Your task to perform on an android device: Open Android settings Image 0: 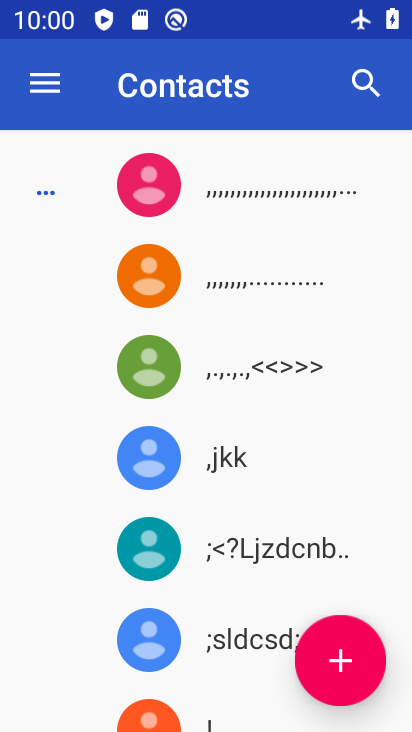
Step 0: press home button
Your task to perform on an android device: Open Android settings Image 1: 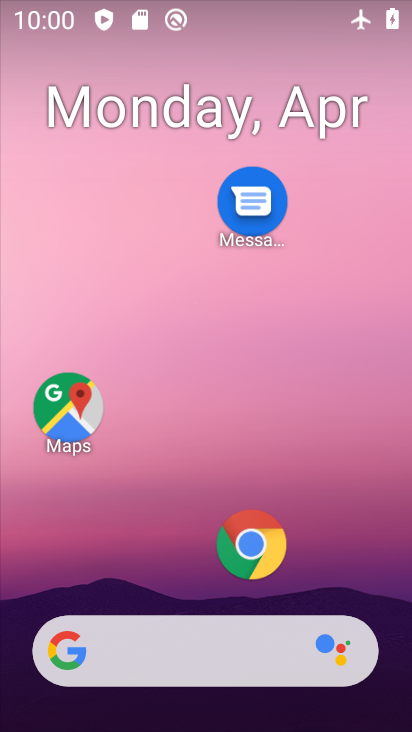
Step 1: drag from (205, 587) to (205, 39)
Your task to perform on an android device: Open Android settings Image 2: 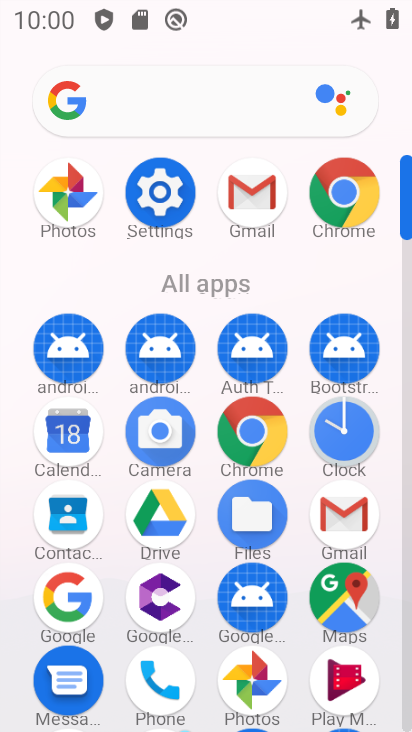
Step 2: click (157, 187)
Your task to perform on an android device: Open Android settings Image 3: 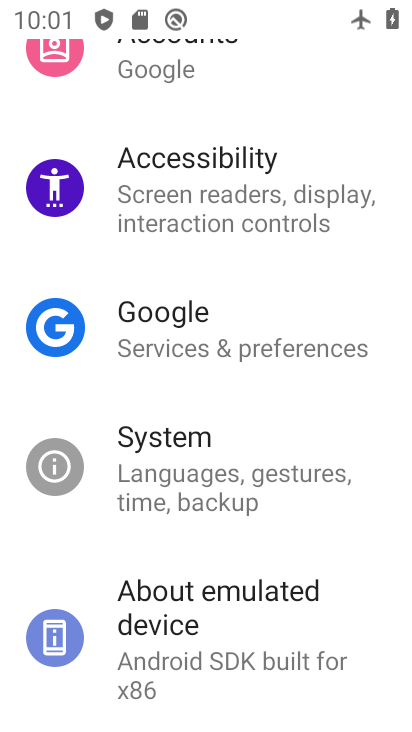
Step 3: drag from (225, 269) to (244, 731)
Your task to perform on an android device: Open Android settings Image 4: 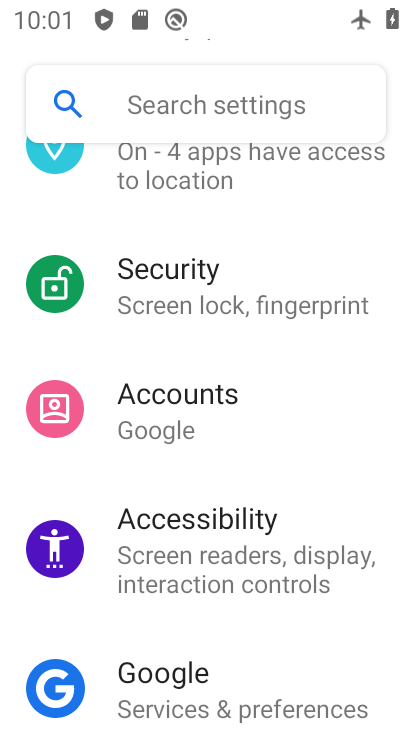
Step 4: drag from (241, 224) to (244, 690)
Your task to perform on an android device: Open Android settings Image 5: 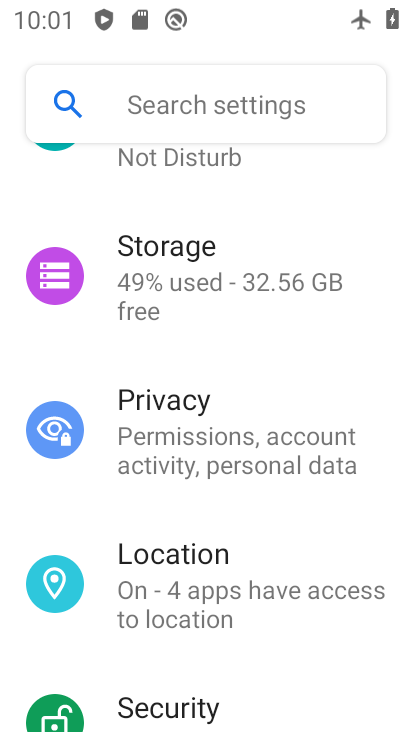
Step 5: drag from (250, 289) to (265, 664)
Your task to perform on an android device: Open Android settings Image 6: 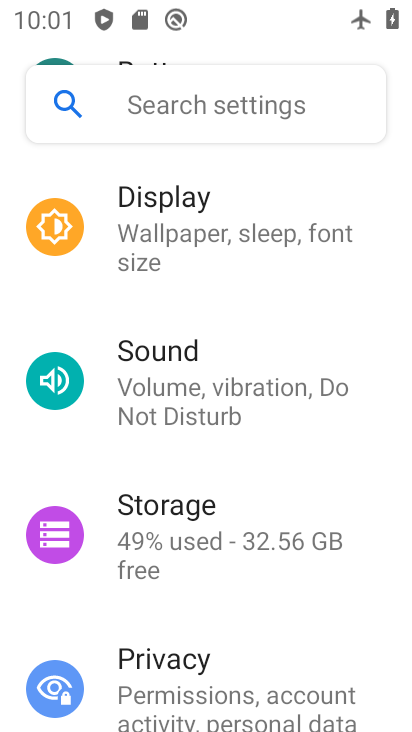
Step 6: drag from (272, 331) to (275, 628)
Your task to perform on an android device: Open Android settings Image 7: 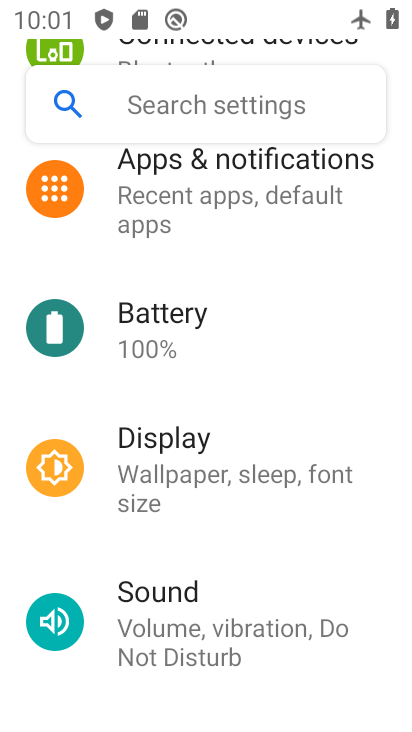
Step 7: drag from (246, 248) to (263, 562)
Your task to perform on an android device: Open Android settings Image 8: 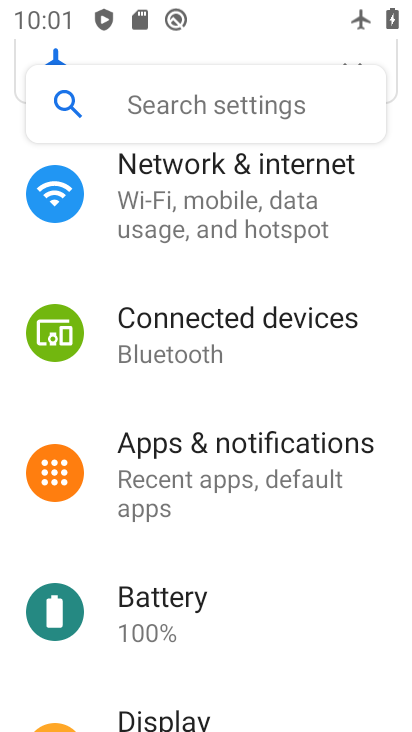
Step 8: drag from (199, 680) to (276, 169)
Your task to perform on an android device: Open Android settings Image 9: 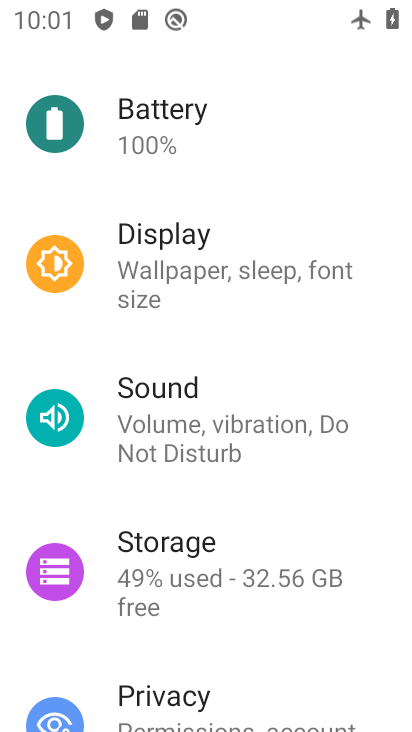
Step 9: drag from (210, 650) to (274, 292)
Your task to perform on an android device: Open Android settings Image 10: 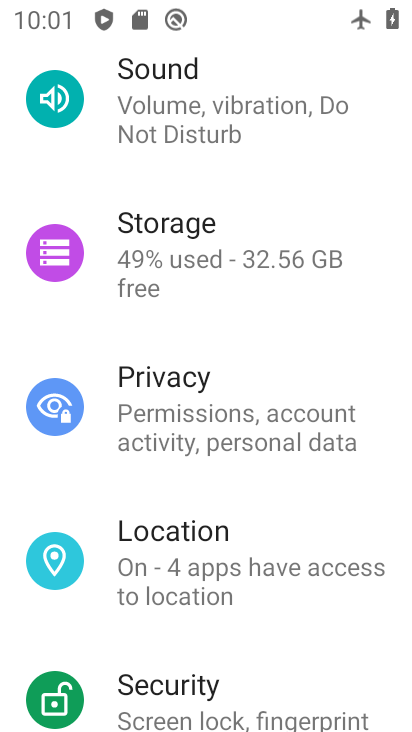
Step 10: drag from (221, 650) to (251, 219)
Your task to perform on an android device: Open Android settings Image 11: 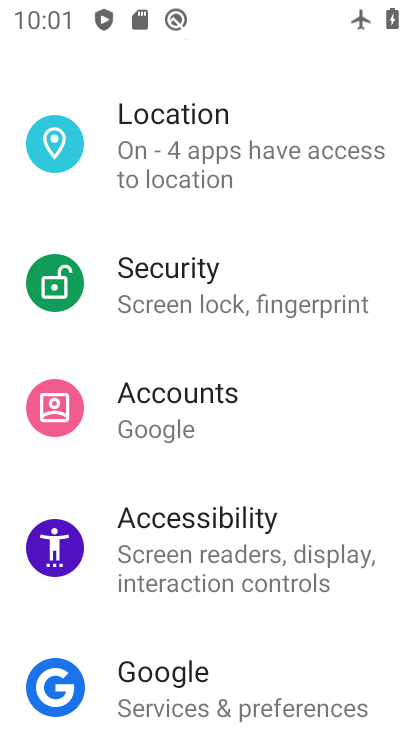
Step 11: drag from (224, 648) to (252, 337)
Your task to perform on an android device: Open Android settings Image 12: 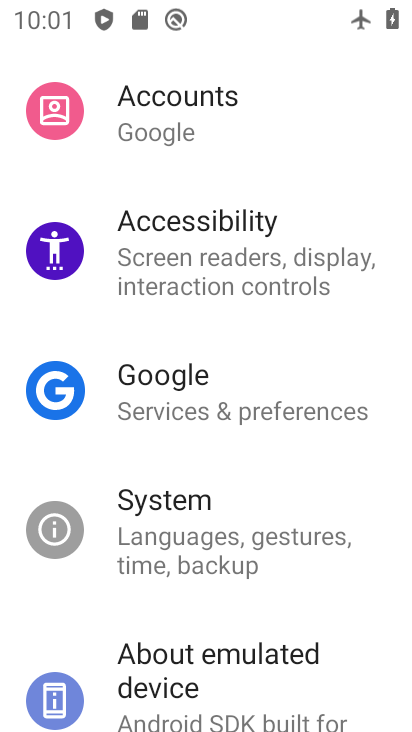
Step 12: click (252, 689)
Your task to perform on an android device: Open Android settings Image 13: 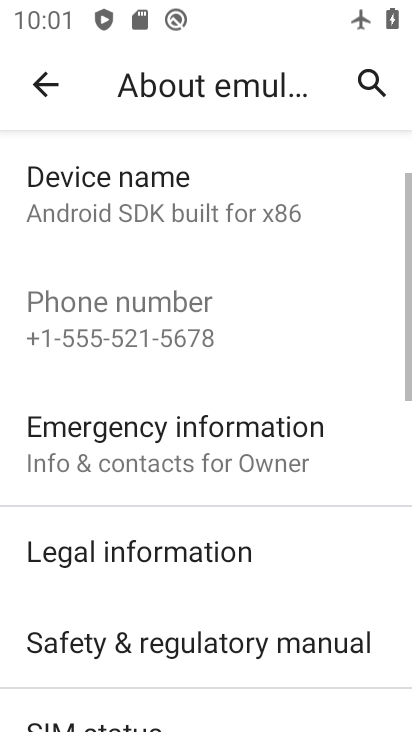
Step 13: drag from (244, 682) to (265, 241)
Your task to perform on an android device: Open Android settings Image 14: 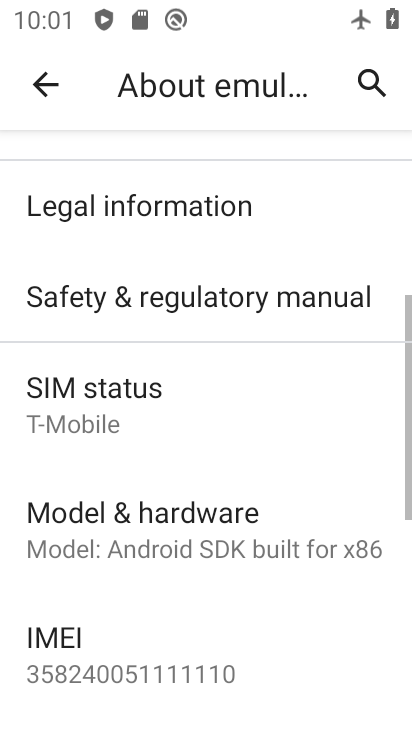
Step 14: drag from (216, 652) to (278, 217)
Your task to perform on an android device: Open Android settings Image 15: 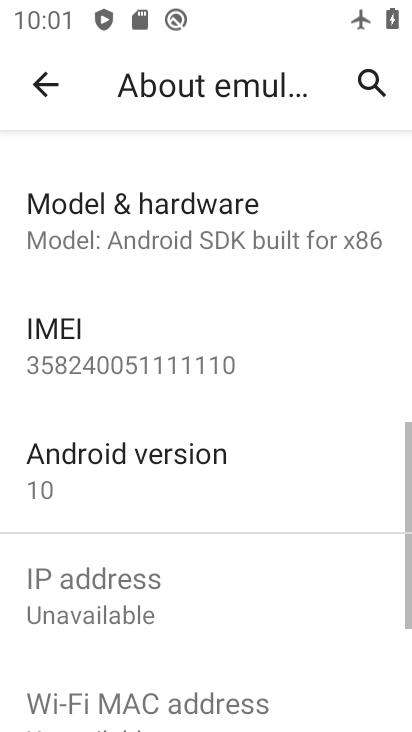
Step 15: click (147, 470)
Your task to perform on an android device: Open Android settings Image 16: 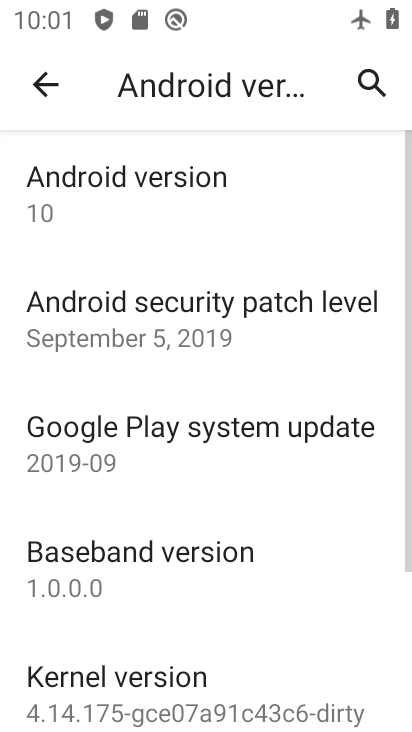
Step 16: task complete